Your task to perform on an android device: Go to privacy settings Image 0: 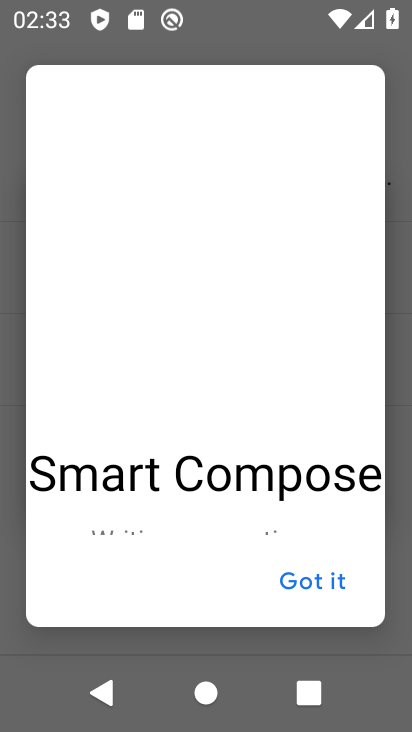
Step 0: press home button
Your task to perform on an android device: Go to privacy settings Image 1: 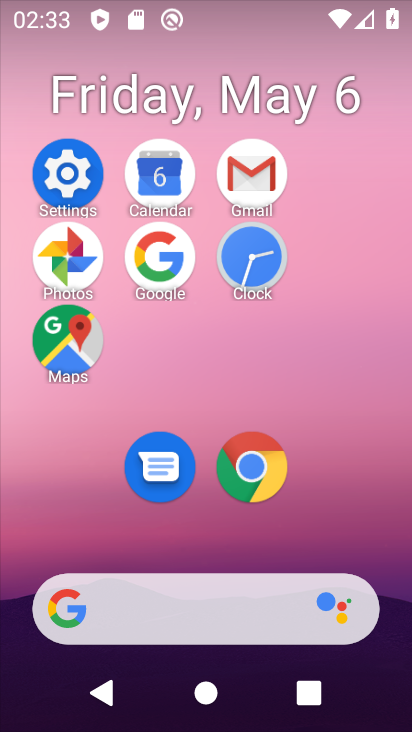
Step 1: click (63, 179)
Your task to perform on an android device: Go to privacy settings Image 2: 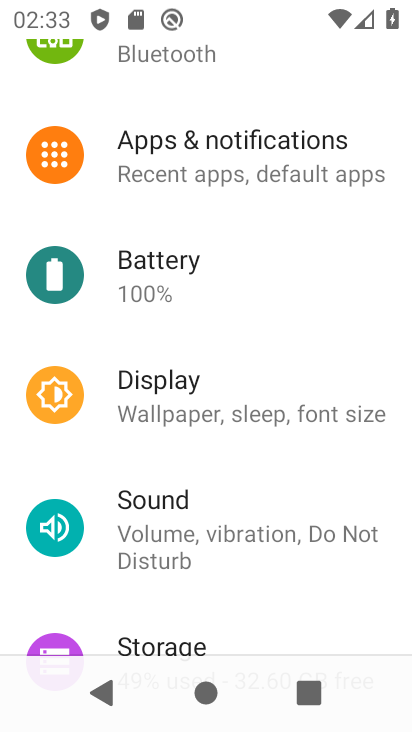
Step 2: drag from (274, 467) to (253, 135)
Your task to perform on an android device: Go to privacy settings Image 3: 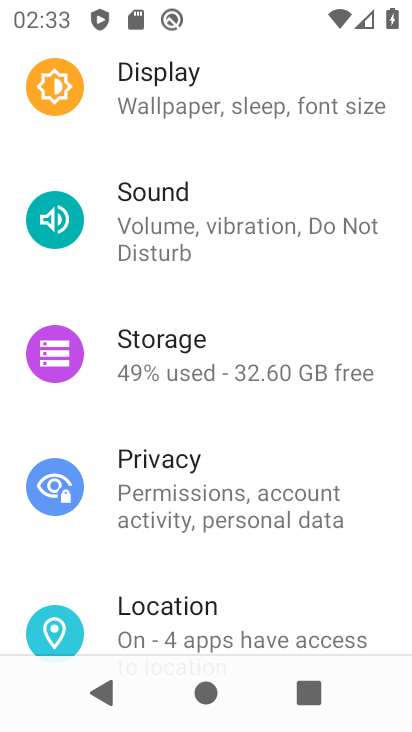
Step 3: click (249, 460)
Your task to perform on an android device: Go to privacy settings Image 4: 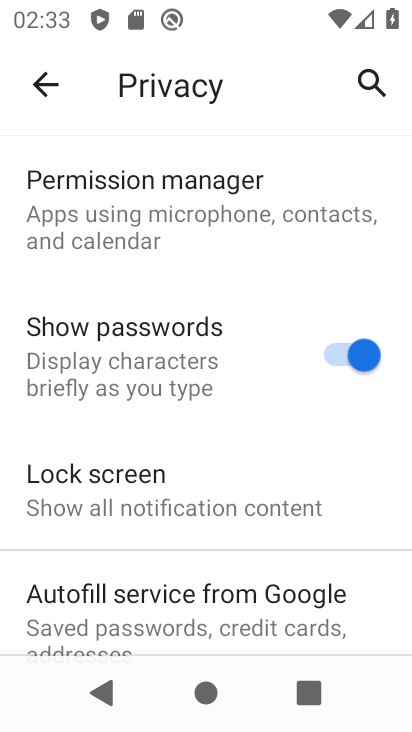
Step 4: task complete